Your task to perform on an android device: Go to Wikipedia Image 0: 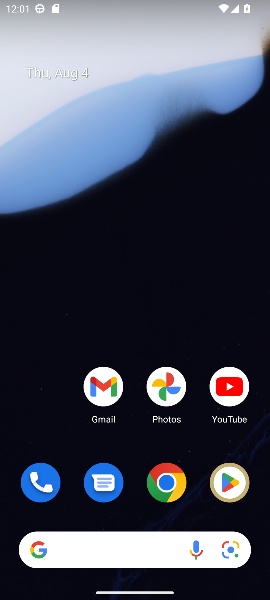
Step 0: click (163, 476)
Your task to perform on an android device: Go to Wikipedia Image 1: 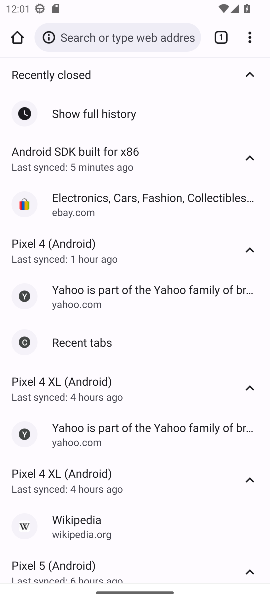
Step 1: click (217, 40)
Your task to perform on an android device: Go to Wikipedia Image 2: 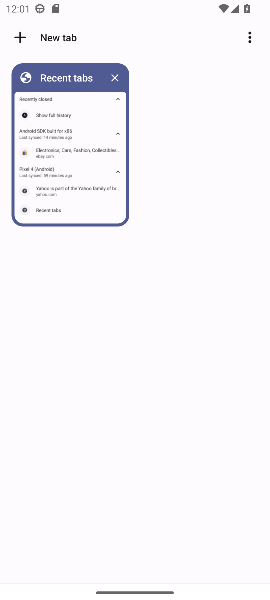
Step 2: click (22, 37)
Your task to perform on an android device: Go to Wikipedia Image 3: 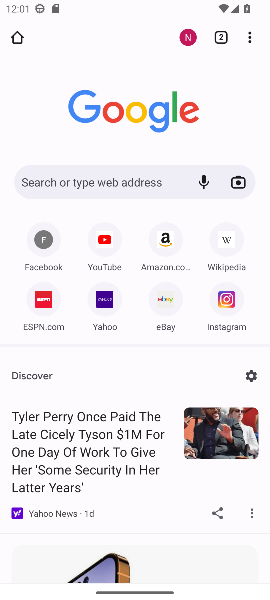
Step 3: click (219, 241)
Your task to perform on an android device: Go to Wikipedia Image 4: 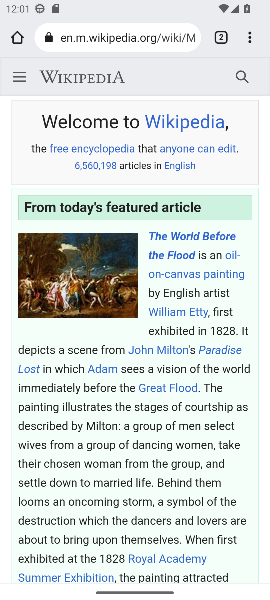
Step 4: task complete